Your task to perform on an android device: Empty the shopping cart on costco.com. Image 0: 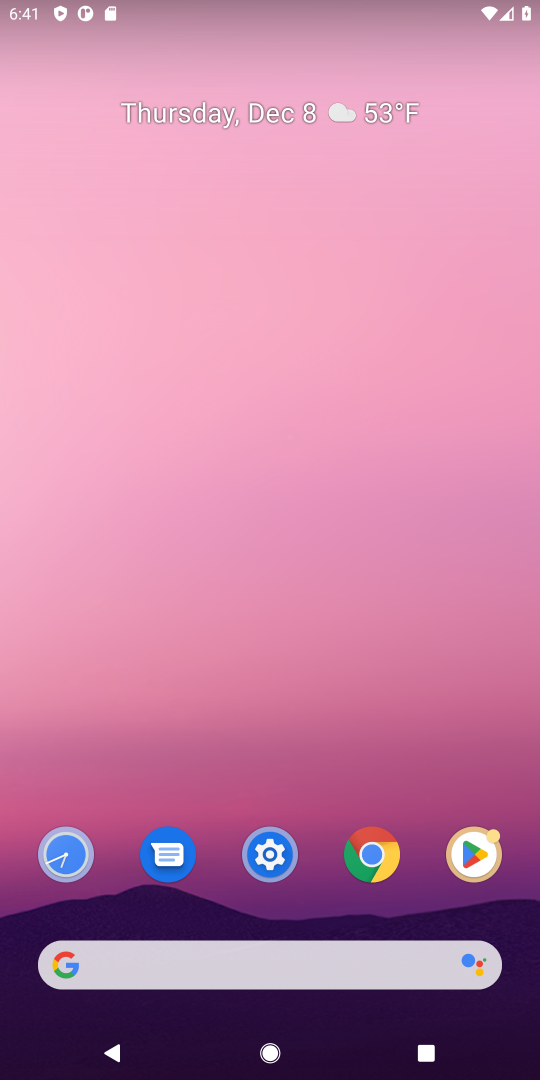
Step 0: click (111, 973)
Your task to perform on an android device: Empty the shopping cart on costco.com. Image 1: 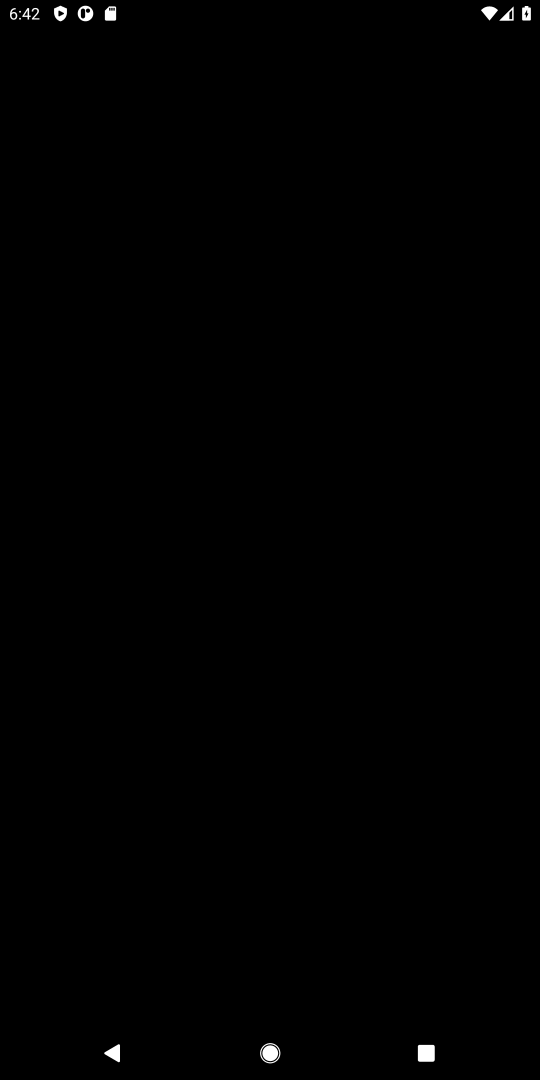
Step 1: press home button
Your task to perform on an android device: Empty the shopping cart on costco.com. Image 2: 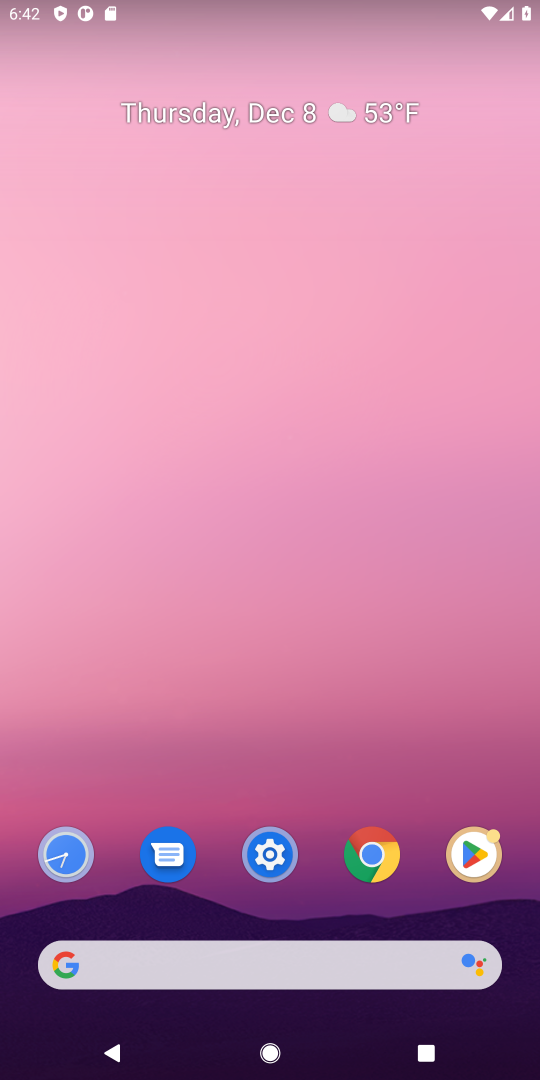
Step 2: click (112, 955)
Your task to perform on an android device: Empty the shopping cart on costco.com. Image 3: 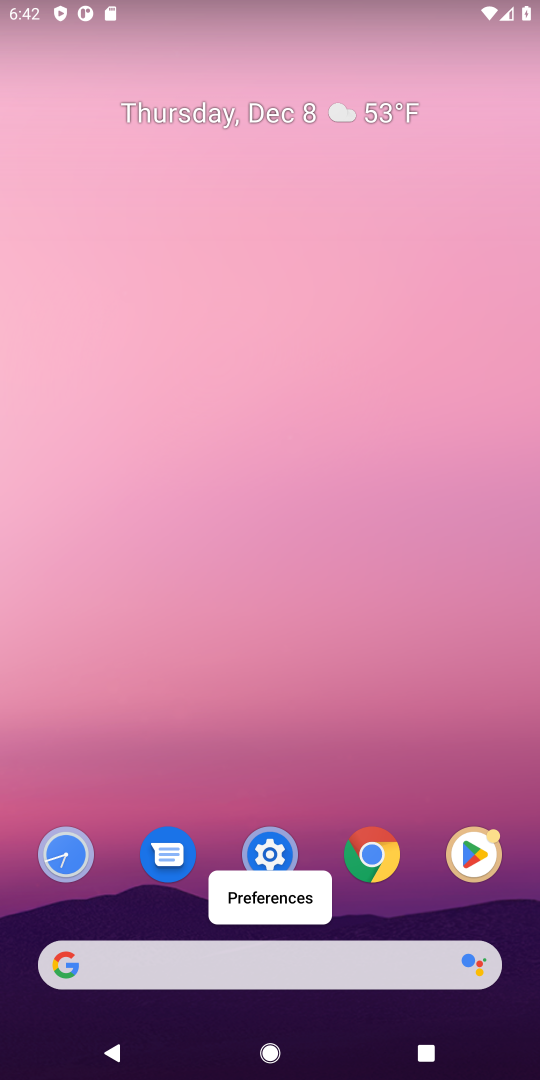
Step 3: click (92, 955)
Your task to perform on an android device: Empty the shopping cart on costco.com. Image 4: 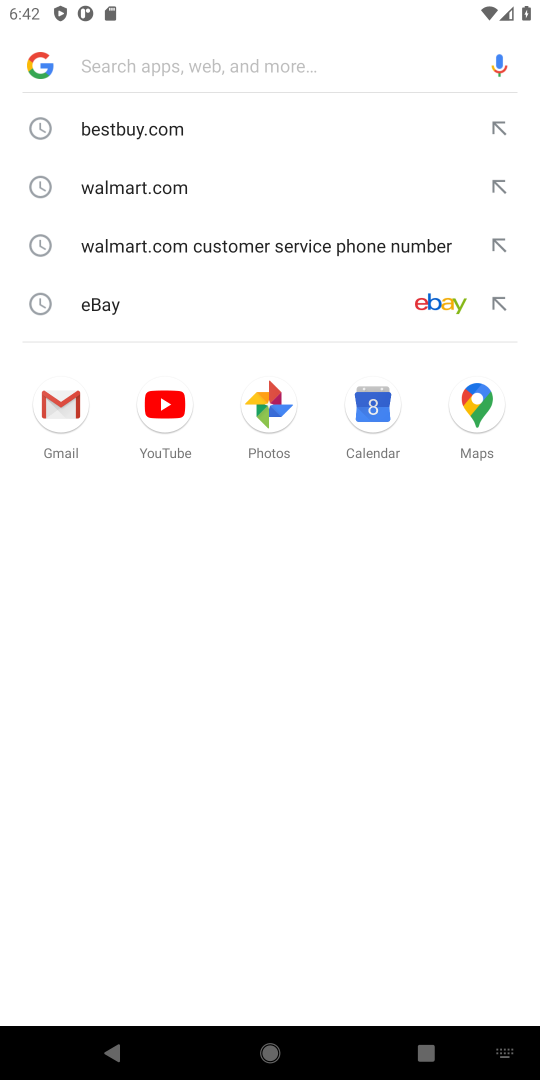
Step 4: type "costco.com"
Your task to perform on an android device: Empty the shopping cart on costco.com. Image 5: 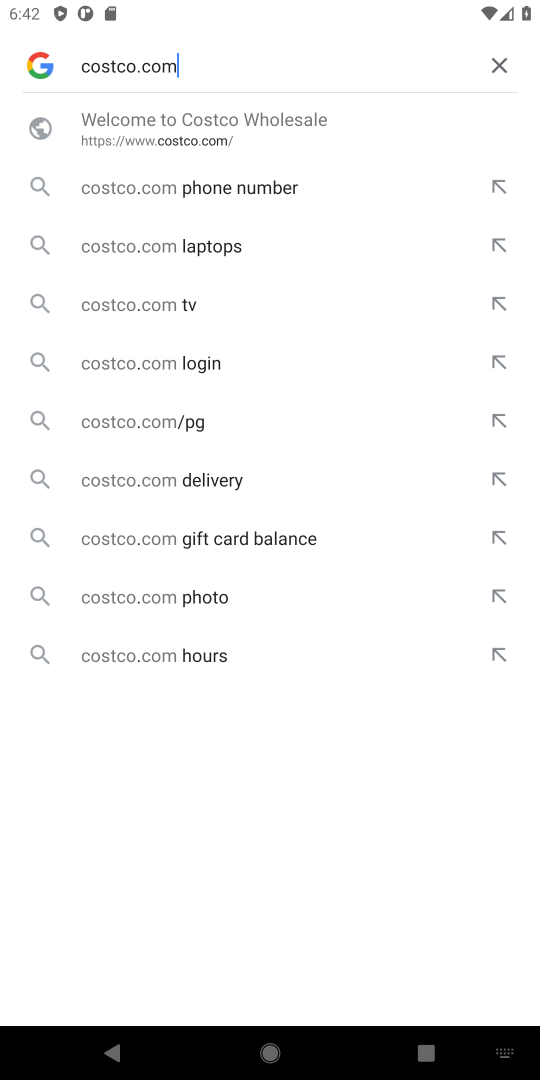
Step 5: press enter
Your task to perform on an android device: Empty the shopping cart on costco.com. Image 6: 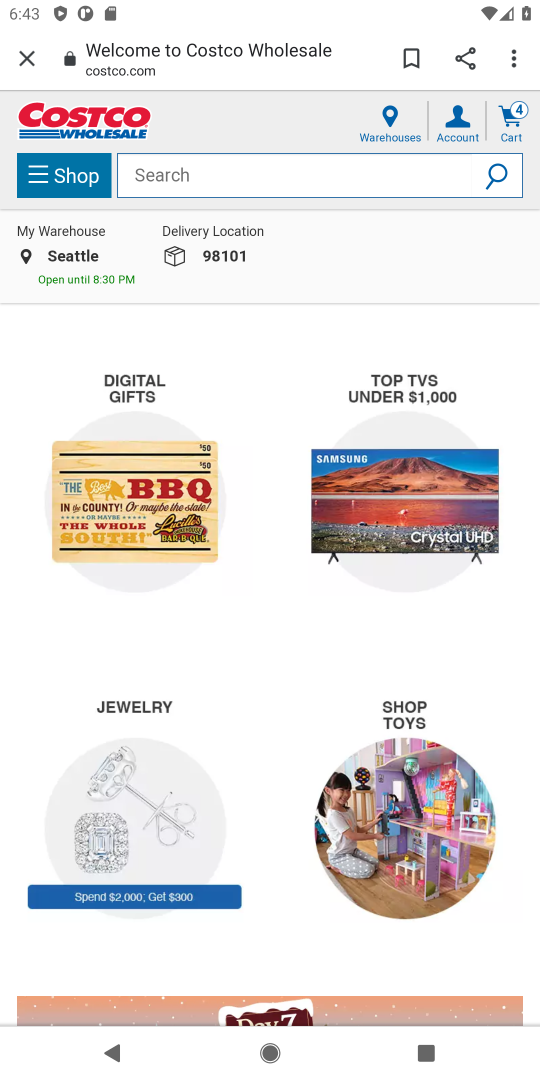
Step 6: click (511, 103)
Your task to perform on an android device: Empty the shopping cart on costco.com. Image 7: 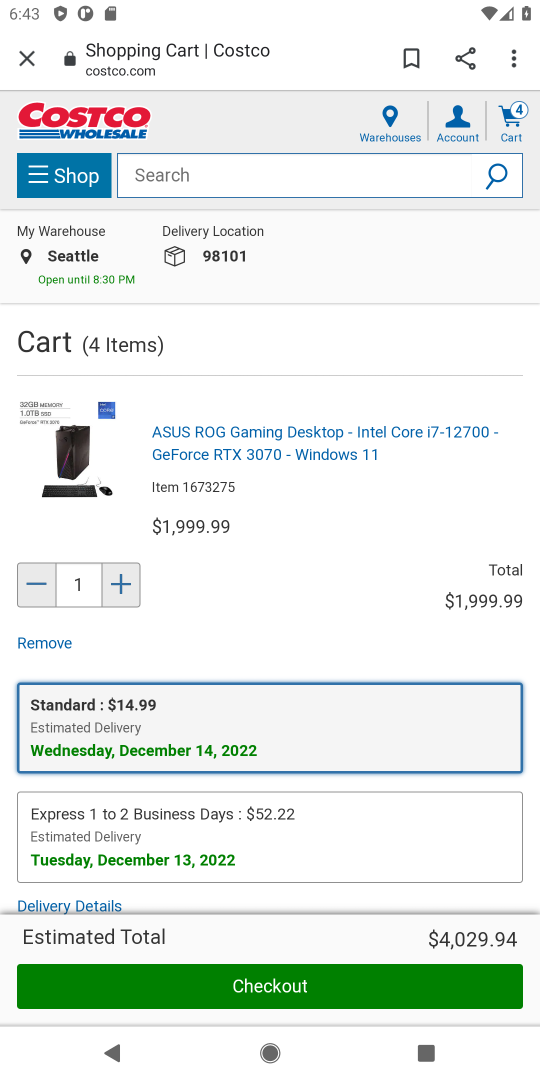
Step 7: click (45, 642)
Your task to perform on an android device: Empty the shopping cart on costco.com. Image 8: 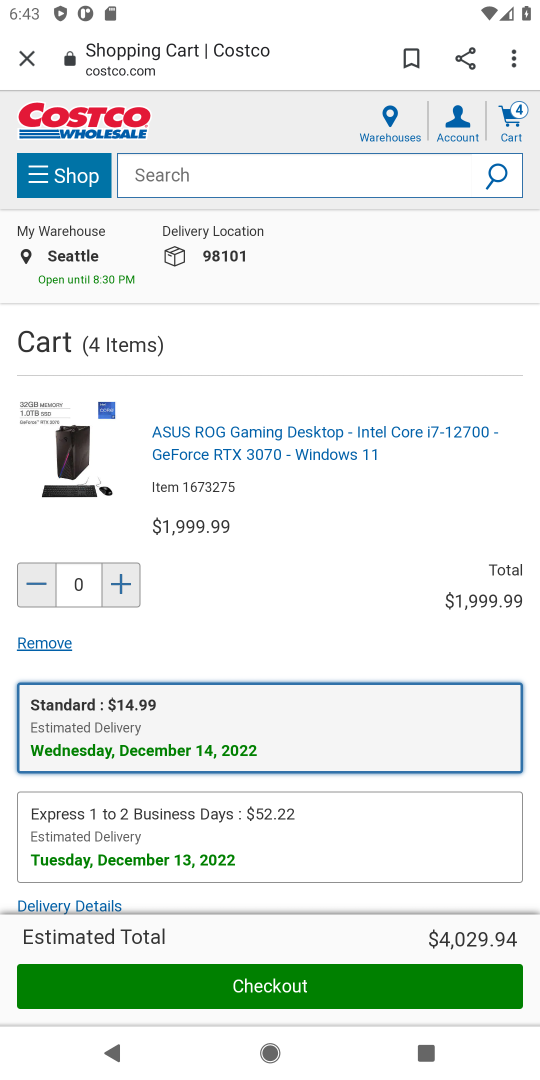
Step 8: drag from (407, 803) to (412, 368)
Your task to perform on an android device: Empty the shopping cart on costco.com. Image 9: 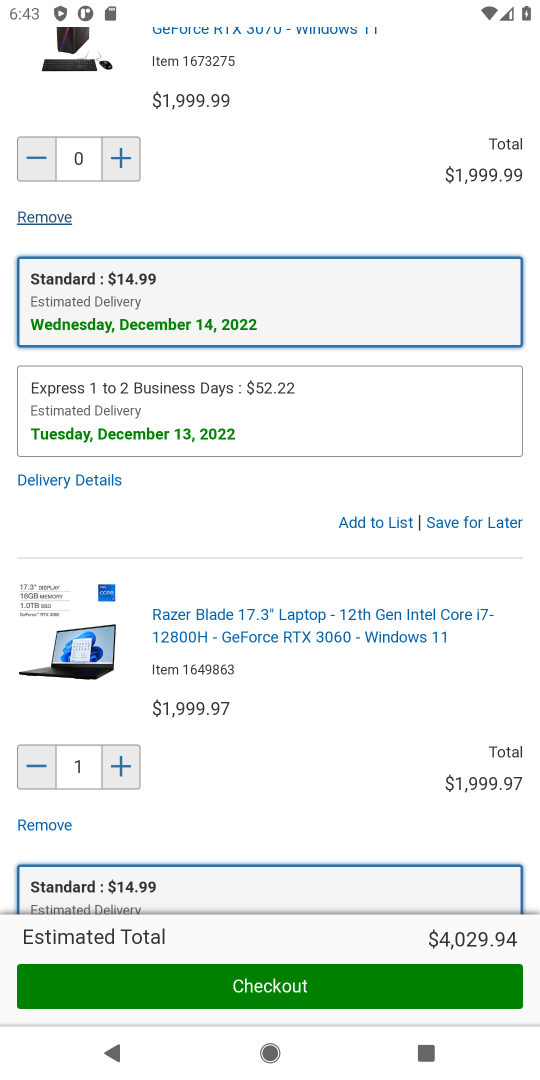
Step 9: click (35, 818)
Your task to perform on an android device: Empty the shopping cart on costco.com. Image 10: 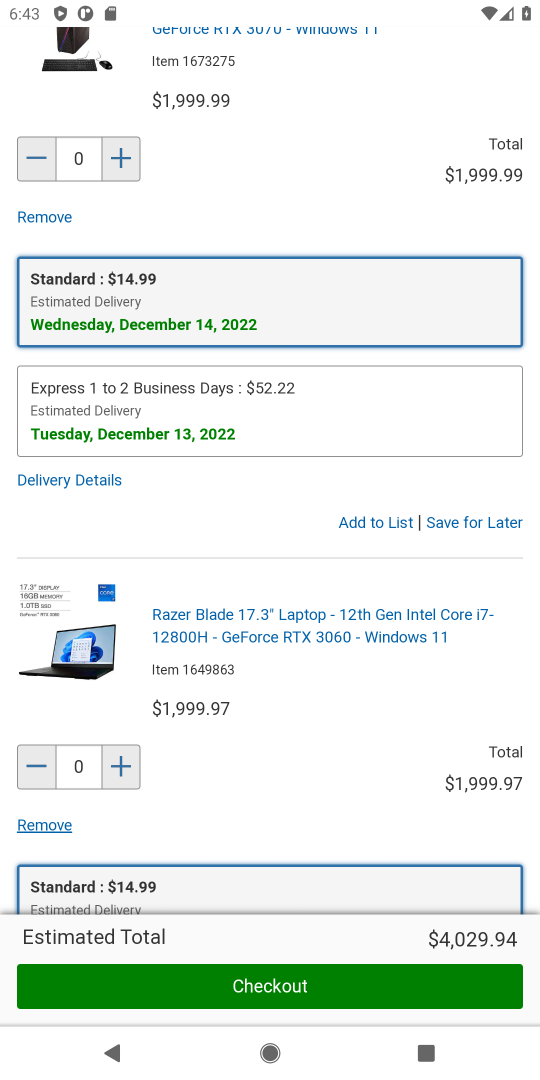
Step 10: task complete